Your task to perform on an android device: Go to Yahoo.com Image 0: 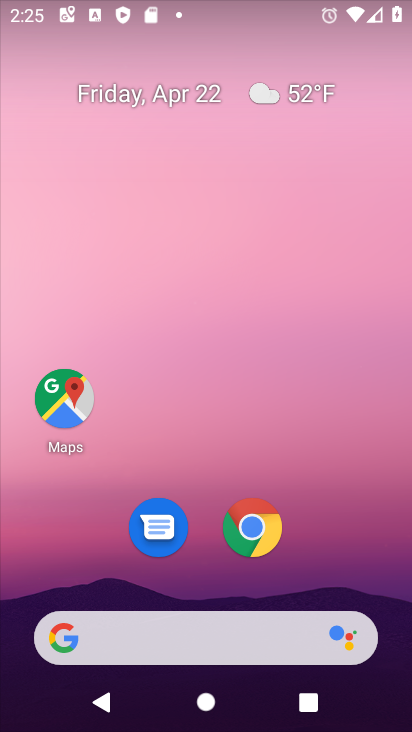
Step 0: drag from (337, 556) to (238, 119)
Your task to perform on an android device: Go to Yahoo.com Image 1: 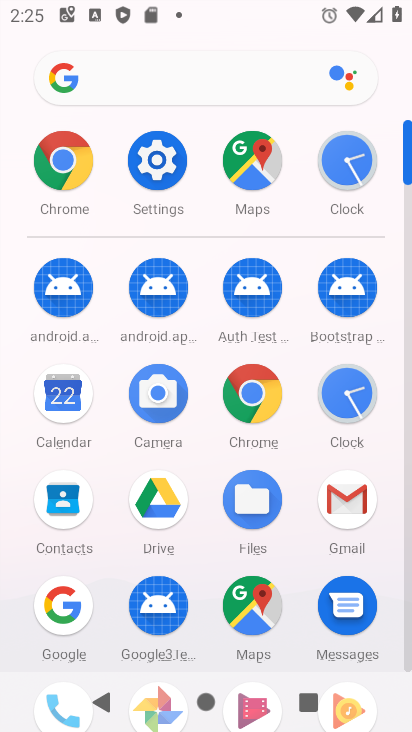
Step 1: click (66, 159)
Your task to perform on an android device: Go to Yahoo.com Image 2: 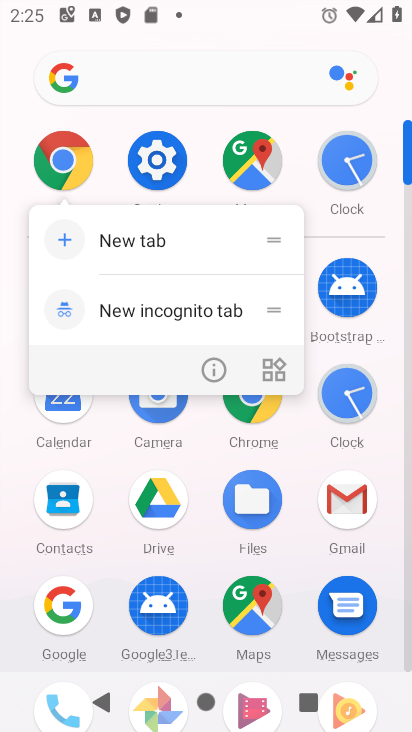
Step 2: click (68, 164)
Your task to perform on an android device: Go to Yahoo.com Image 3: 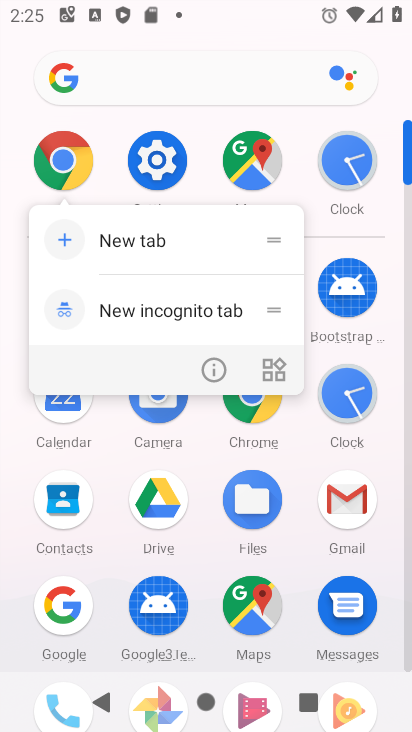
Step 3: click (68, 164)
Your task to perform on an android device: Go to Yahoo.com Image 4: 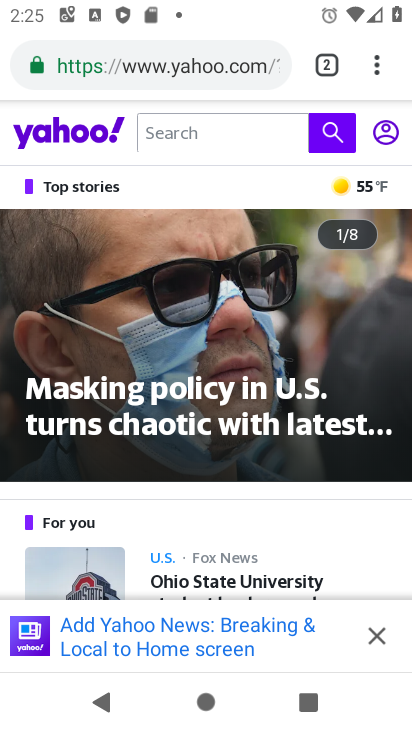
Step 4: task complete